Your task to perform on an android device: turn off javascript in the chrome app Image 0: 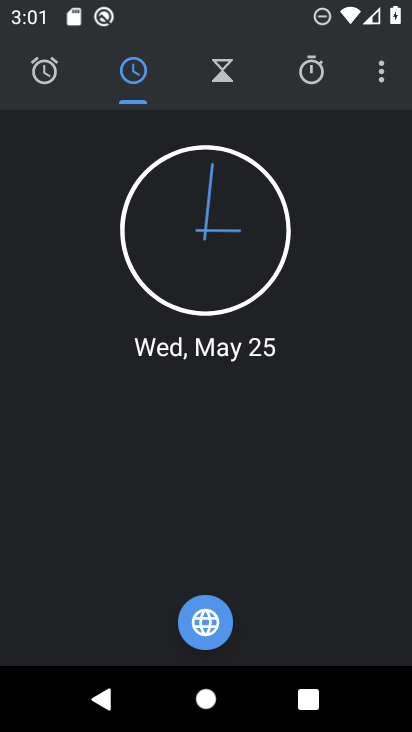
Step 0: press home button
Your task to perform on an android device: turn off javascript in the chrome app Image 1: 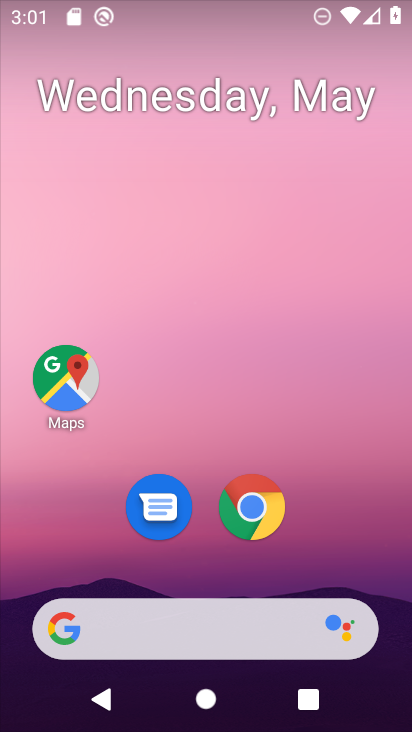
Step 1: click (246, 518)
Your task to perform on an android device: turn off javascript in the chrome app Image 2: 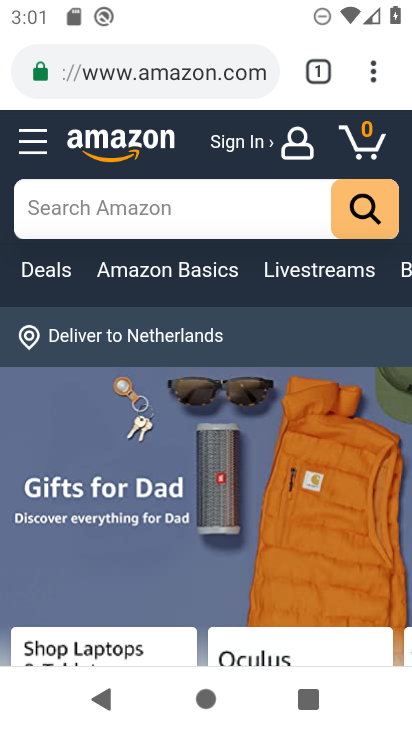
Step 2: click (377, 74)
Your task to perform on an android device: turn off javascript in the chrome app Image 3: 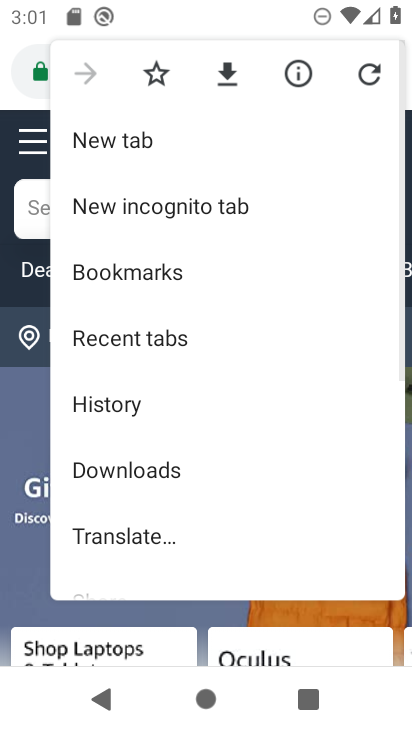
Step 3: drag from (183, 545) to (198, 266)
Your task to perform on an android device: turn off javascript in the chrome app Image 4: 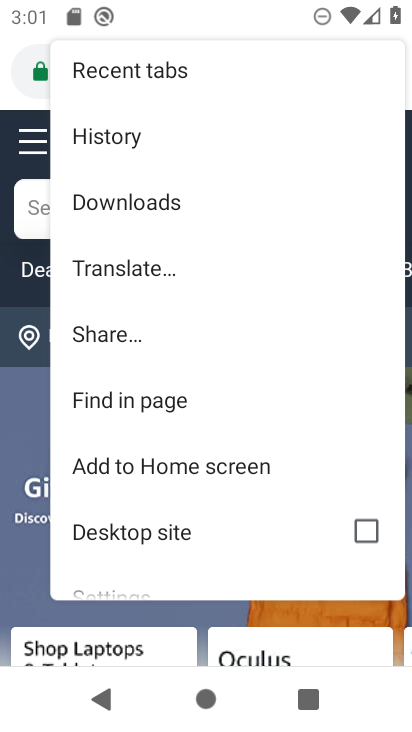
Step 4: drag from (125, 474) to (163, 226)
Your task to perform on an android device: turn off javascript in the chrome app Image 5: 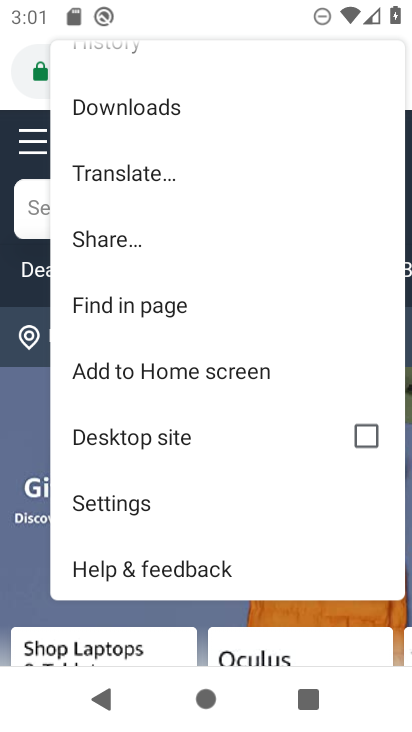
Step 5: click (135, 512)
Your task to perform on an android device: turn off javascript in the chrome app Image 6: 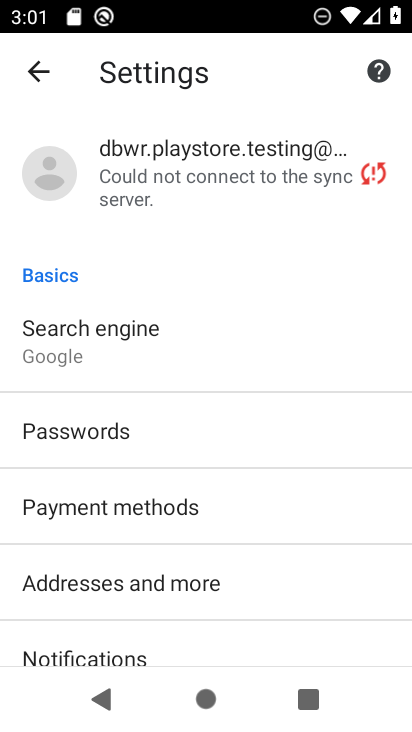
Step 6: drag from (133, 555) to (171, 355)
Your task to perform on an android device: turn off javascript in the chrome app Image 7: 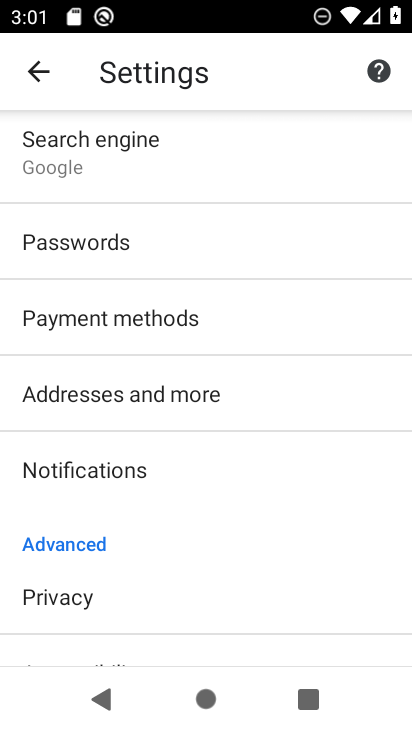
Step 7: drag from (140, 556) to (205, 308)
Your task to perform on an android device: turn off javascript in the chrome app Image 8: 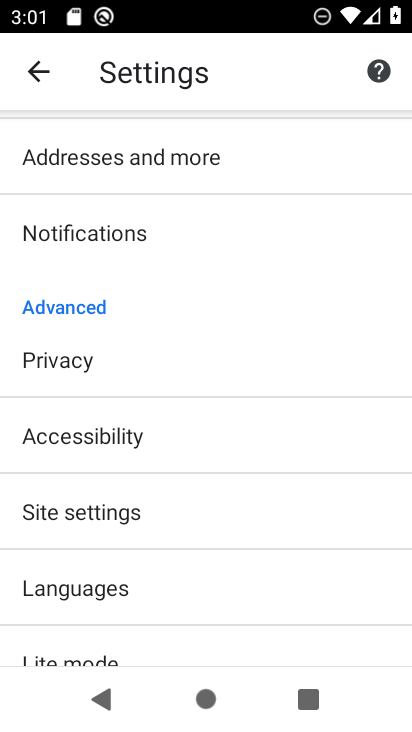
Step 8: click (116, 519)
Your task to perform on an android device: turn off javascript in the chrome app Image 9: 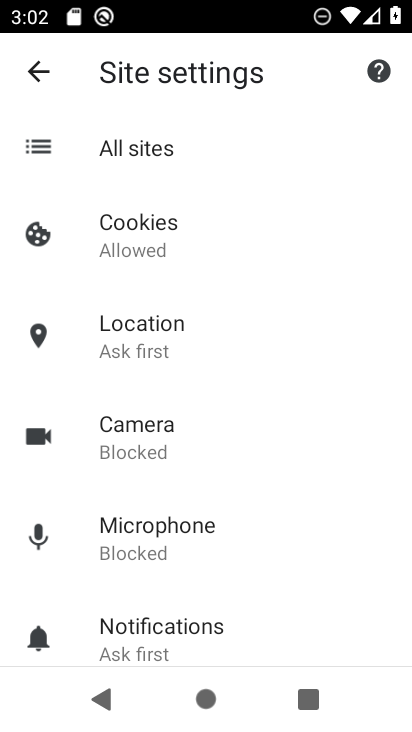
Step 9: drag from (170, 577) to (178, 366)
Your task to perform on an android device: turn off javascript in the chrome app Image 10: 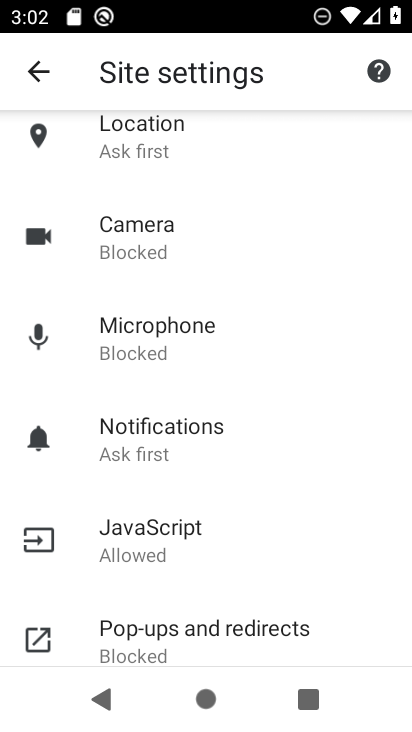
Step 10: click (174, 549)
Your task to perform on an android device: turn off javascript in the chrome app Image 11: 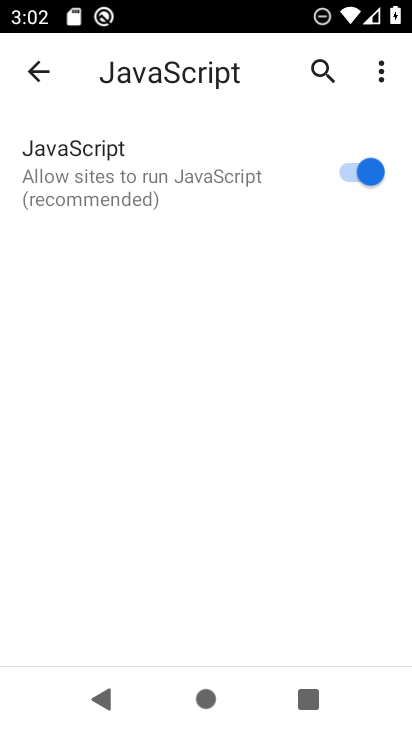
Step 11: click (352, 173)
Your task to perform on an android device: turn off javascript in the chrome app Image 12: 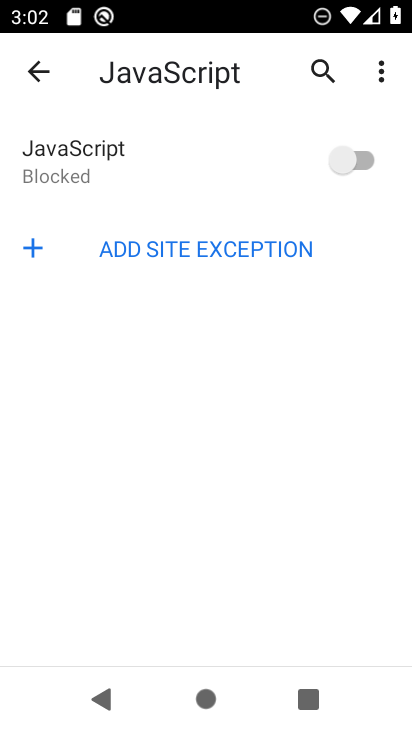
Step 12: task complete